Your task to perform on an android device: all mails in gmail Image 0: 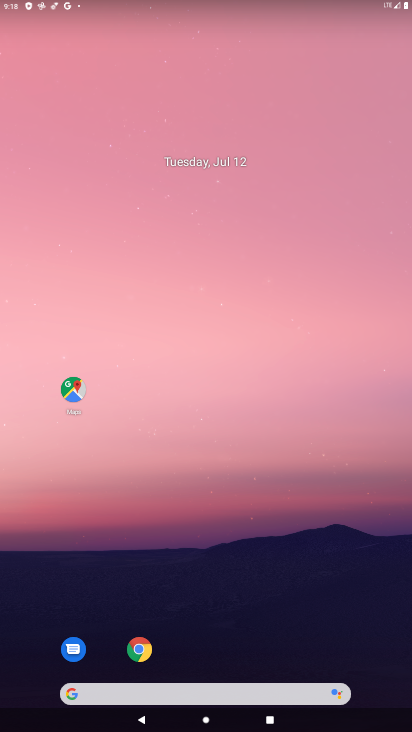
Step 0: drag from (239, 661) to (208, 184)
Your task to perform on an android device: all mails in gmail Image 1: 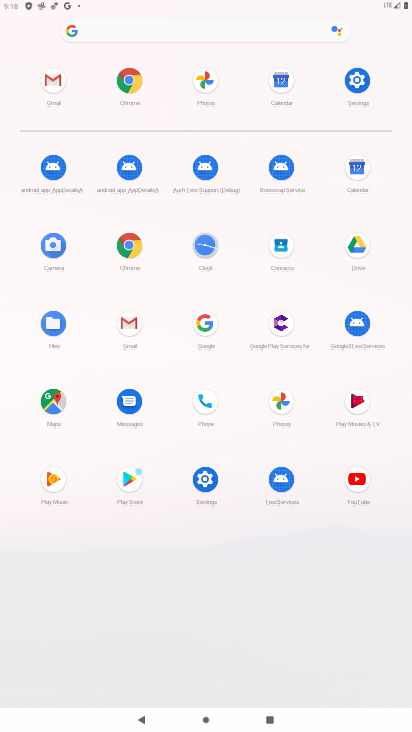
Step 1: click (54, 83)
Your task to perform on an android device: all mails in gmail Image 2: 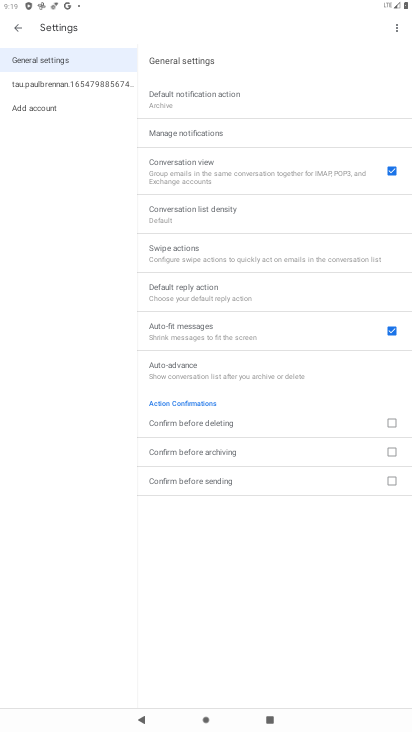
Step 2: click (12, 26)
Your task to perform on an android device: all mails in gmail Image 3: 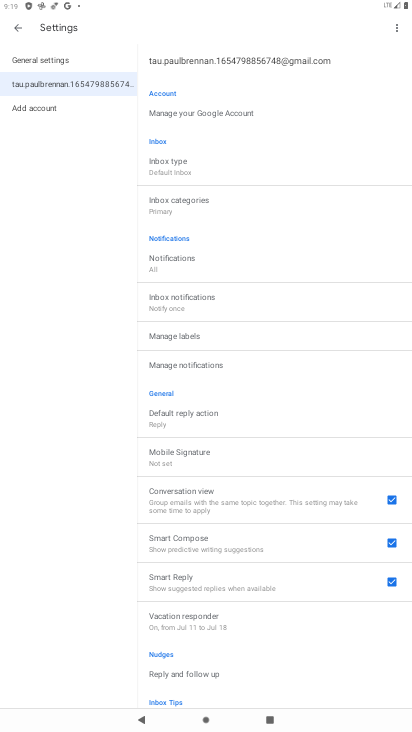
Step 3: click (19, 32)
Your task to perform on an android device: all mails in gmail Image 4: 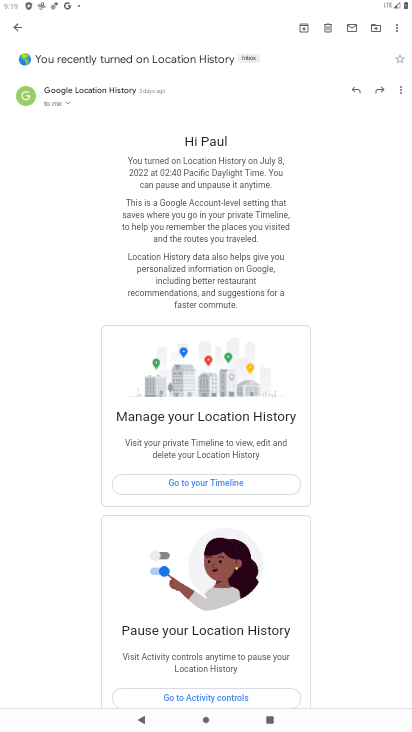
Step 4: click (19, 32)
Your task to perform on an android device: all mails in gmail Image 5: 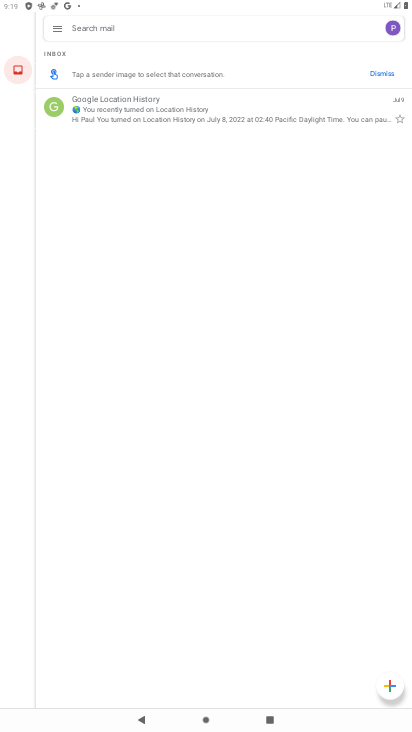
Step 5: task complete